Your task to perform on an android device: Search for sushi restaurants on Maps Image 0: 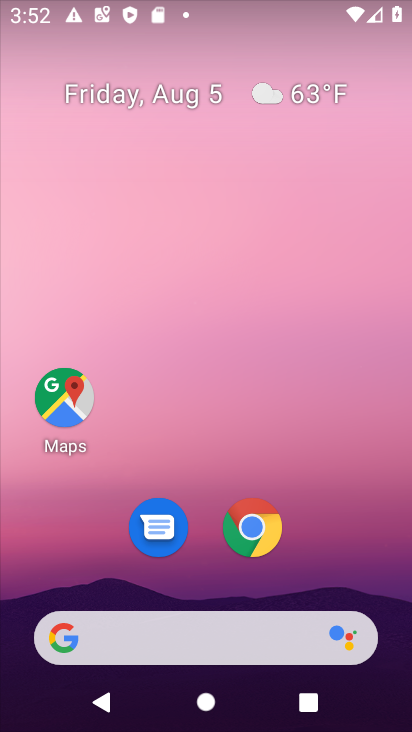
Step 0: drag from (219, 590) to (210, 130)
Your task to perform on an android device: Search for sushi restaurants on Maps Image 1: 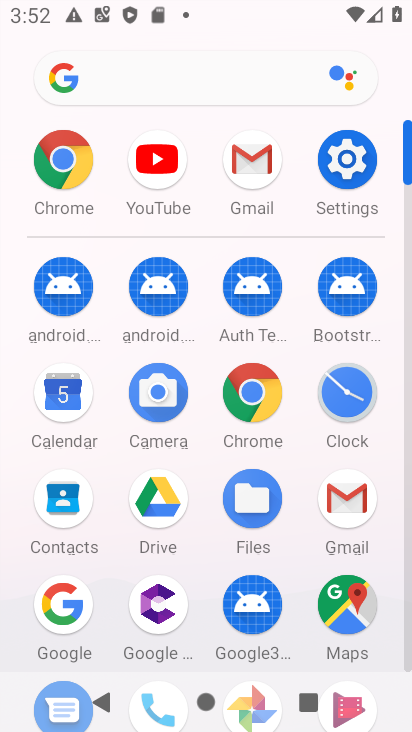
Step 1: click (358, 599)
Your task to perform on an android device: Search for sushi restaurants on Maps Image 2: 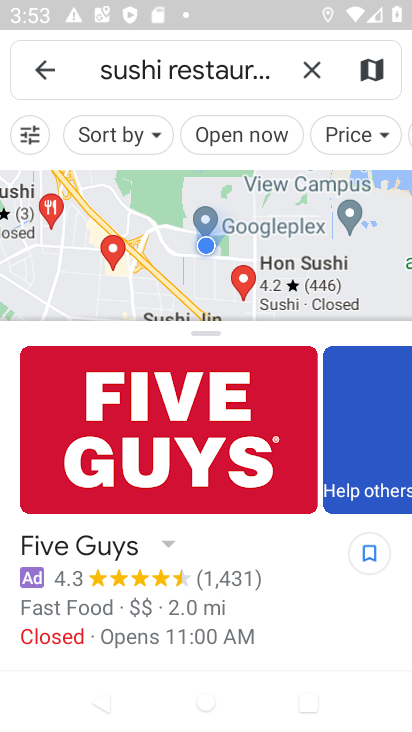
Step 2: task complete